Your task to perform on an android device: move a message to another label in the gmail app Image 0: 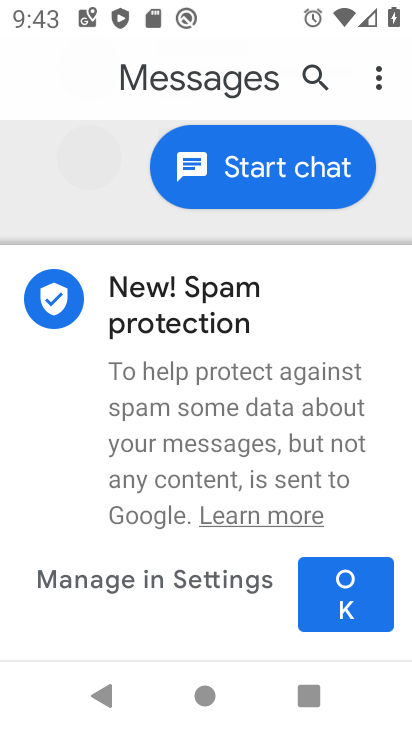
Step 0: press home button
Your task to perform on an android device: move a message to another label in the gmail app Image 1: 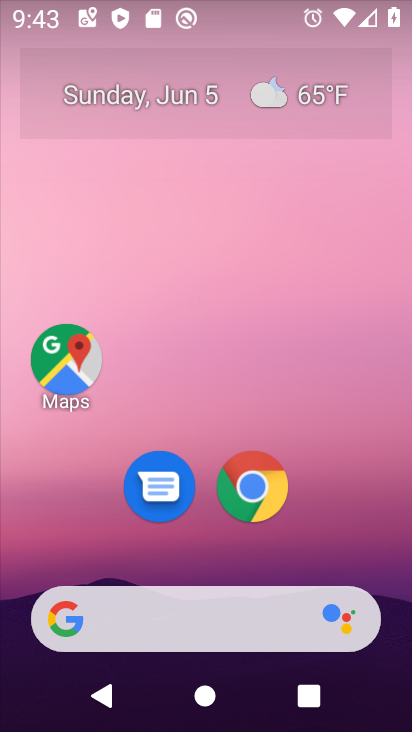
Step 1: drag from (373, 530) to (341, 147)
Your task to perform on an android device: move a message to another label in the gmail app Image 2: 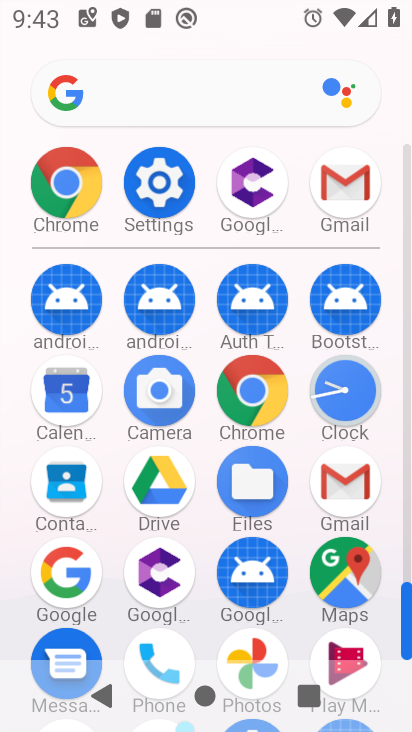
Step 2: click (328, 504)
Your task to perform on an android device: move a message to another label in the gmail app Image 3: 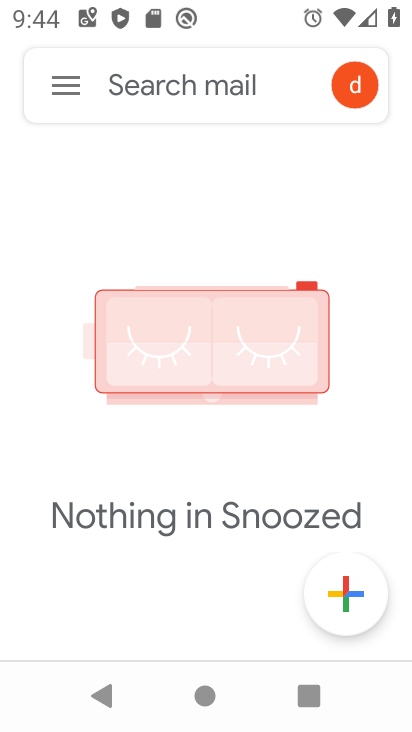
Step 3: click (48, 100)
Your task to perform on an android device: move a message to another label in the gmail app Image 4: 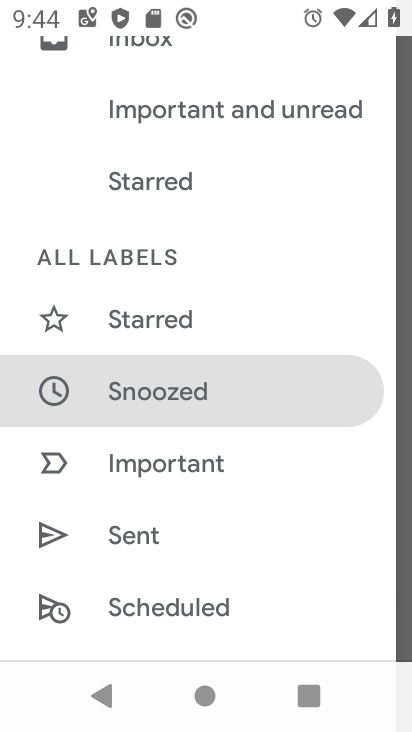
Step 4: drag from (131, 589) to (169, 249)
Your task to perform on an android device: move a message to another label in the gmail app Image 5: 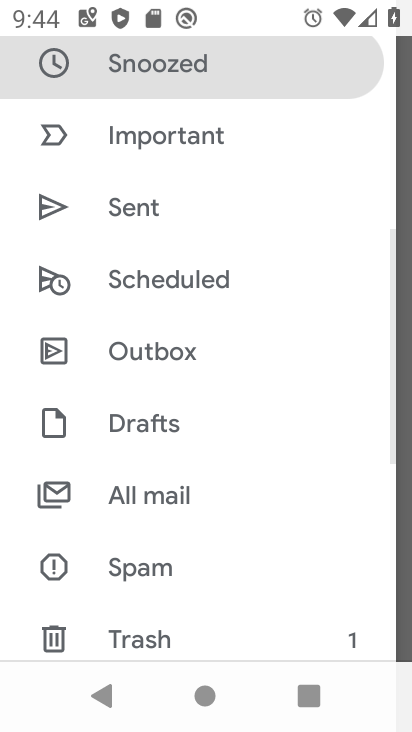
Step 5: drag from (153, 598) to (183, 338)
Your task to perform on an android device: move a message to another label in the gmail app Image 6: 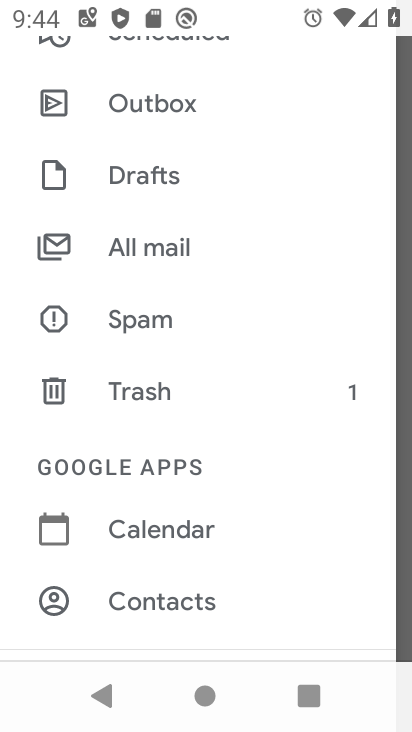
Step 6: click (159, 251)
Your task to perform on an android device: move a message to another label in the gmail app Image 7: 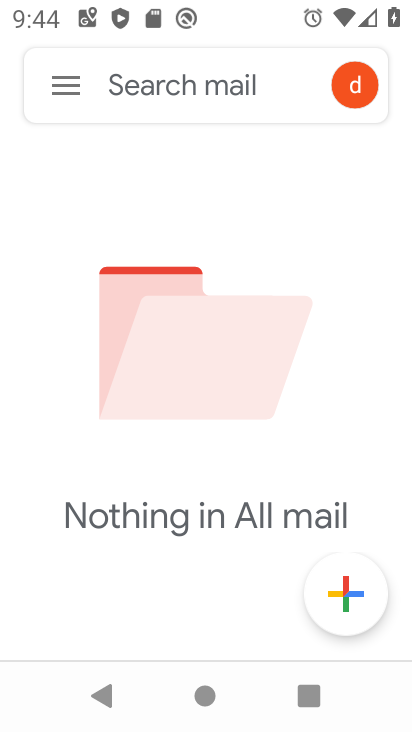
Step 7: task complete